Your task to perform on an android device: check battery use Image 0: 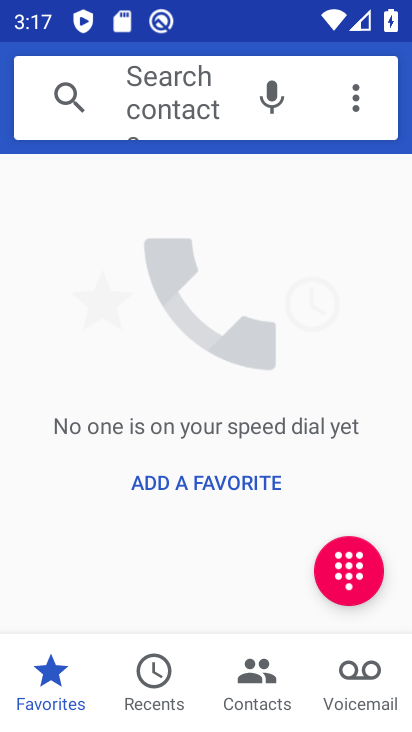
Step 0: press home button
Your task to perform on an android device: check battery use Image 1: 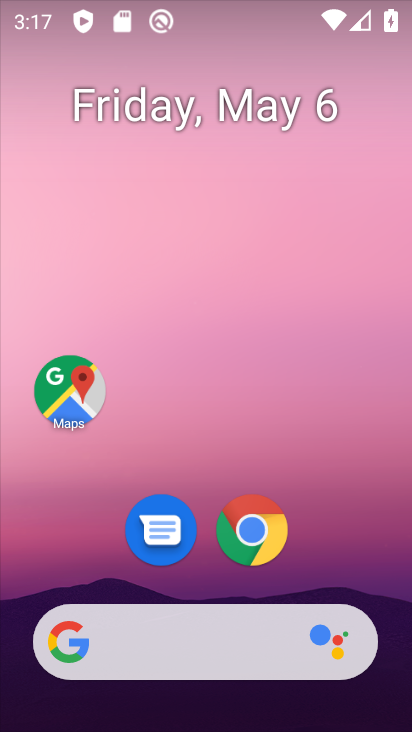
Step 1: drag from (292, 614) to (286, 175)
Your task to perform on an android device: check battery use Image 2: 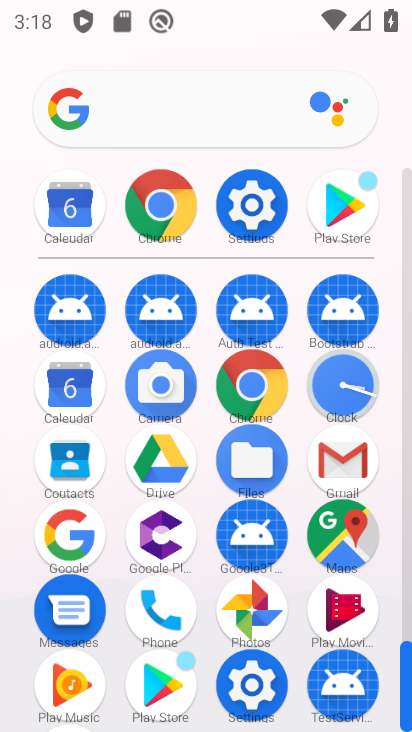
Step 2: click (277, 208)
Your task to perform on an android device: check battery use Image 3: 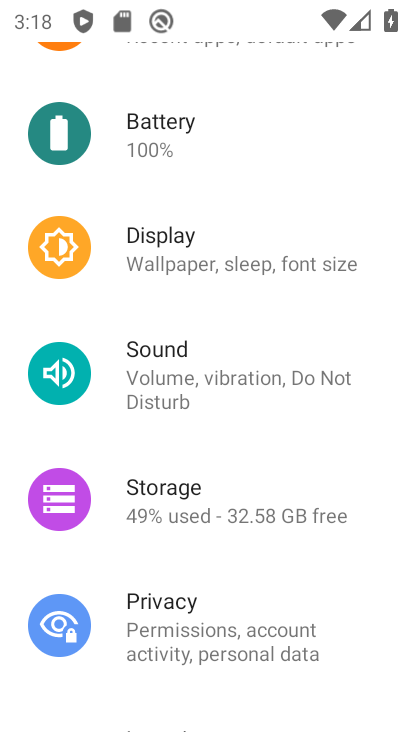
Step 3: click (240, 150)
Your task to perform on an android device: check battery use Image 4: 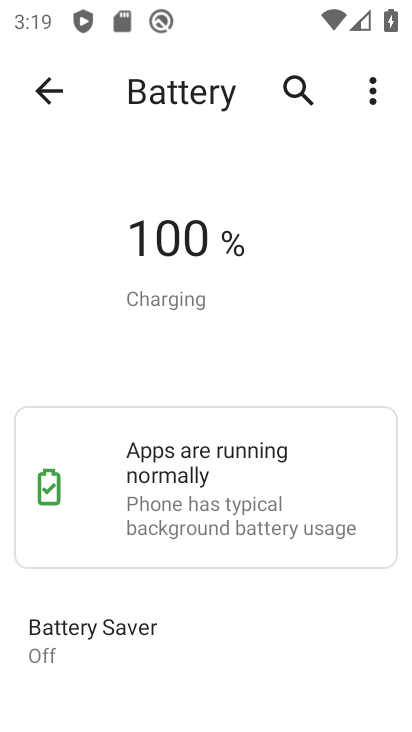
Step 4: task complete